Your task to perform on an android device: Go to Android settings Image 0: 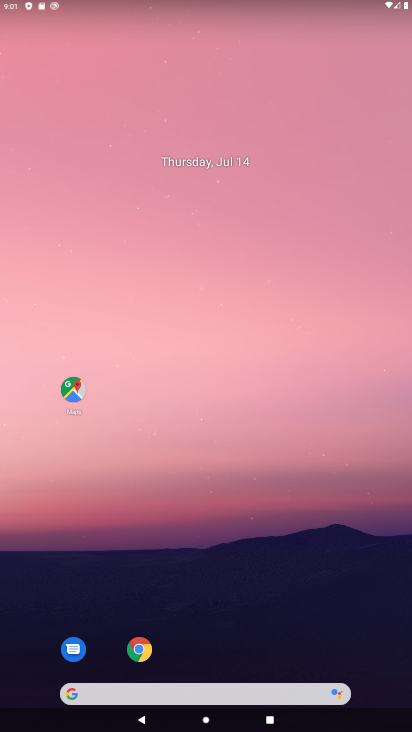
Step 0: drag from (208, 630) to (213, 224)
Your task to perform on an android device: Go to Android settings Image 1: 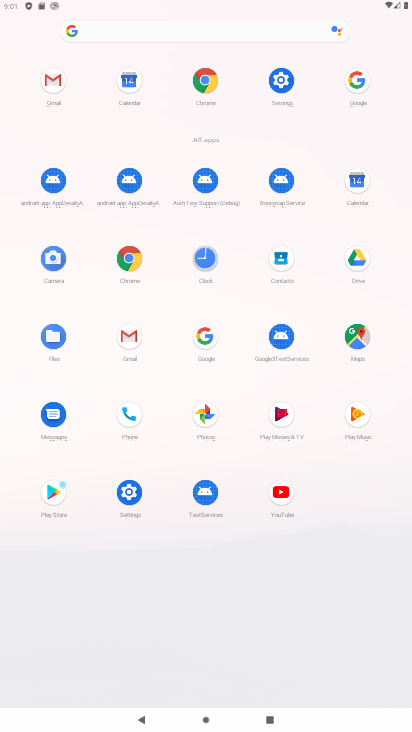
Step 1: click (284, 90)
Your task to perform on an android device: Go to Android settings Image 2: 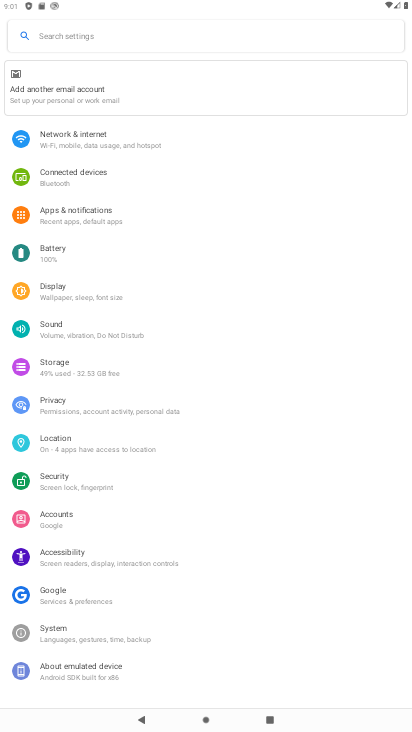
Step 2: task complete